Your task to perform on an android device: refresh tabs in the chrome app Image 0: 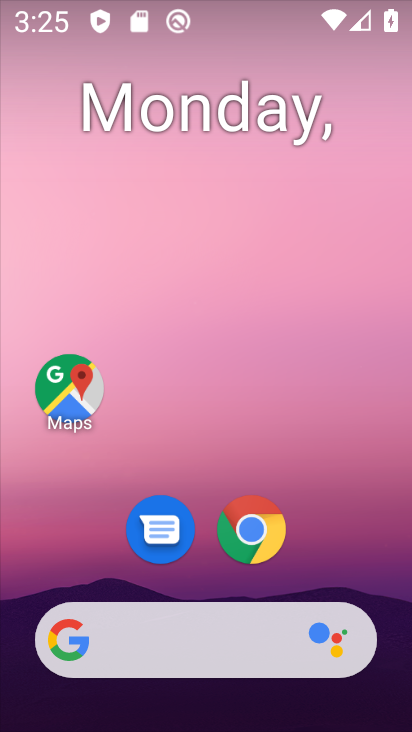
Step 0: click (258, 528)
Your task to perform on an android device: refresh tabs in the chrome app Image 1: 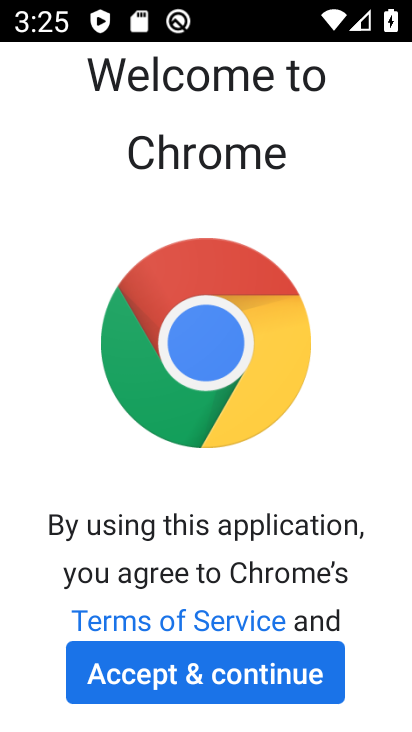
Step 1: click (227, 664)
Your task to perform on an android device: refresh tabs in the chrome app Image 2: 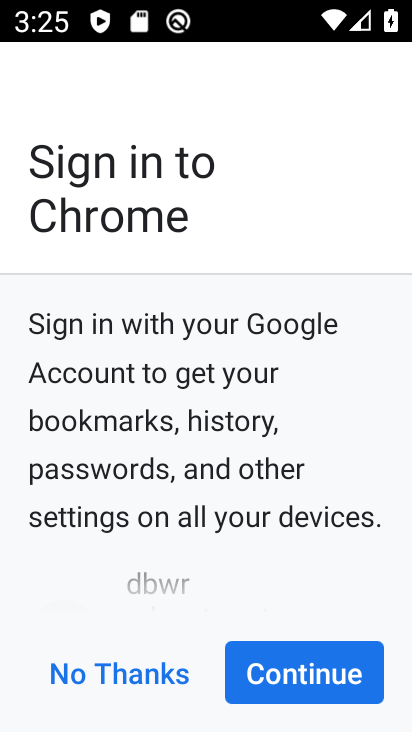
Step 2: click (227, 664)
Your task to perform on an android device: refresh tabs in the chrome app Image 3: 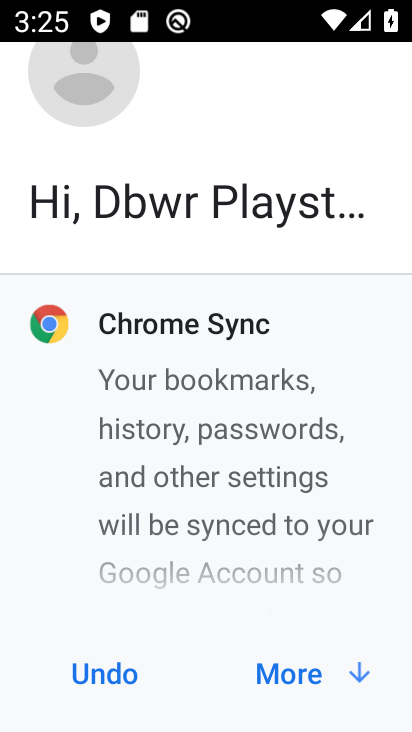
Step 3: click (274, 670)
Your task to perform on an android device: refresh tabs in the chrome app Image 4: 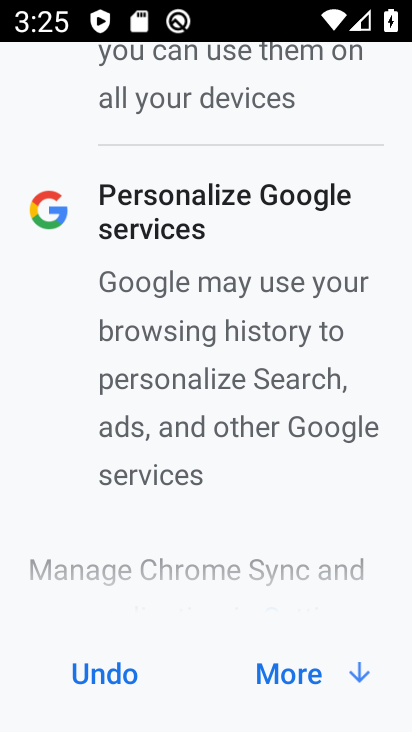
Step 4: click (321, 680)
Your task to perform on an android device: refresh tabs in the chrome app Image 5: 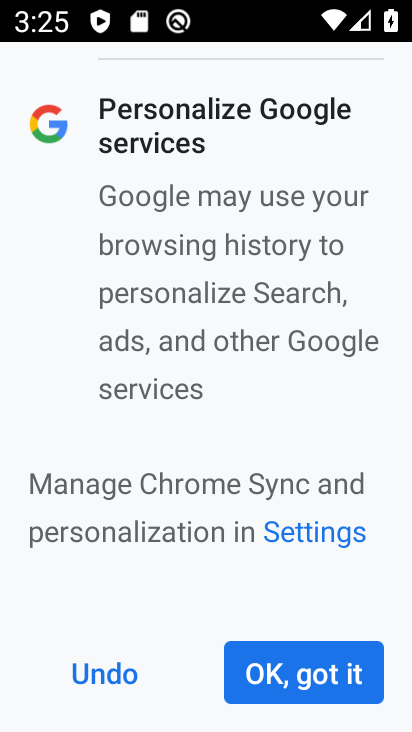
Step 5: click (289, 659)
Your task to perform on an android device: refresh tabs in the chrome app Image 6: 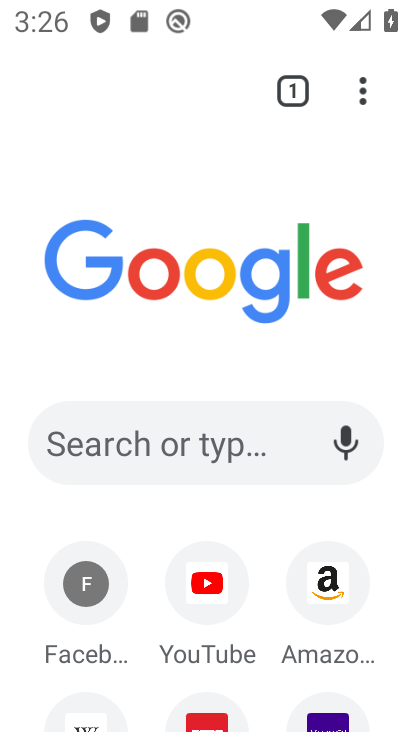
Step 6: task complete